Your task to perform on an android device: check out phone information Image 0: 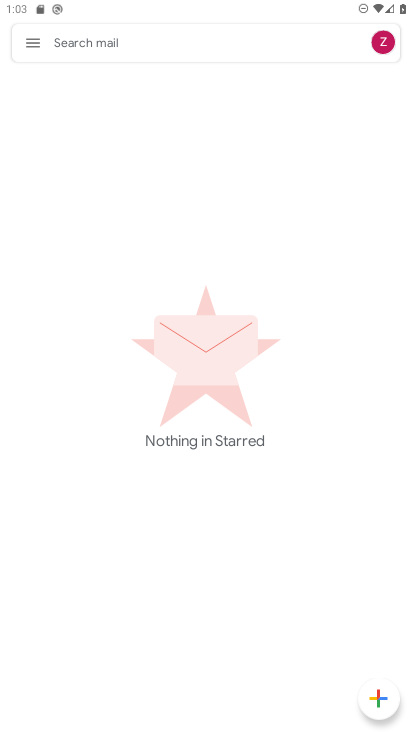
Step 0: press home button
Your task to perform on an android device: check out phone information Image 1: 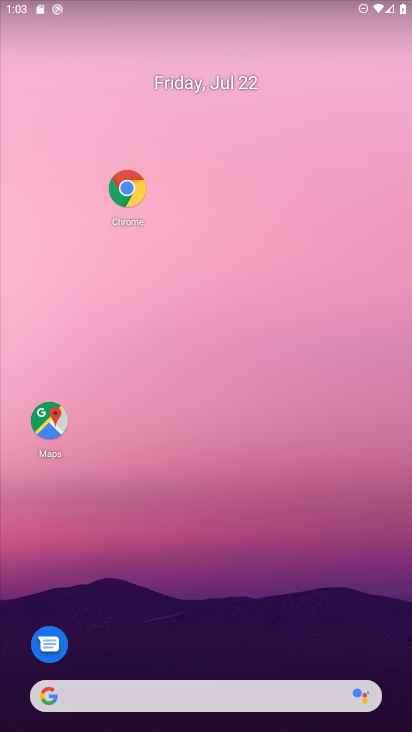
Step 1: drag from (154, 587) to (224, 35)
Your task to perform on an android device: check out phone information Image 2: 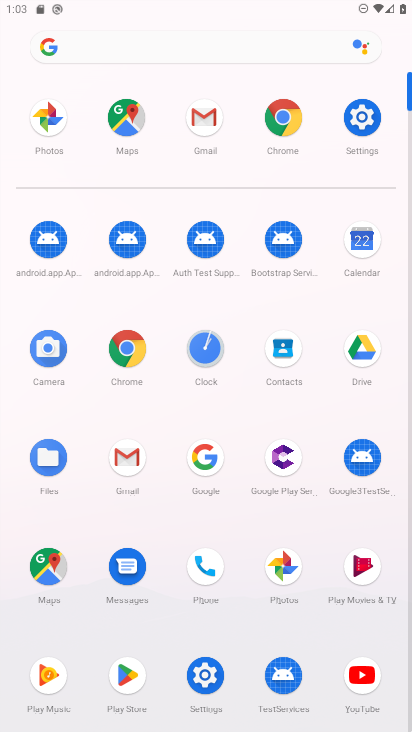
Step 2: click (348, 112)
Your task to perform on an android device: check out phone information Image 3: 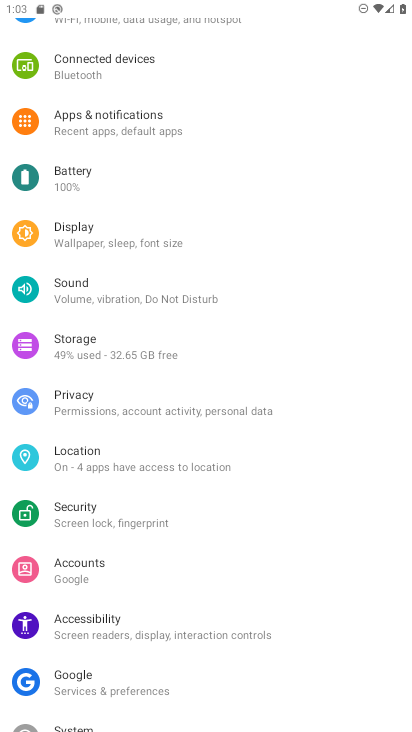
Step 3: drag from (193, 668) to (181, 219)
Your task to perform on an android device: check out phone information Image 4: 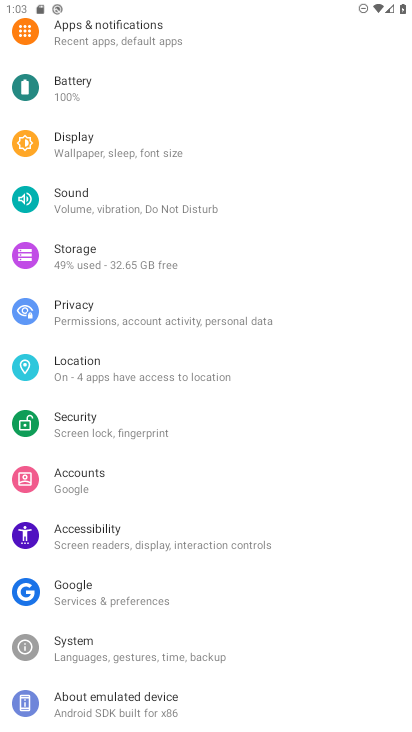
Step 4: click (191, 691)
Your task to perform on an android device: check out phone information Image 5: 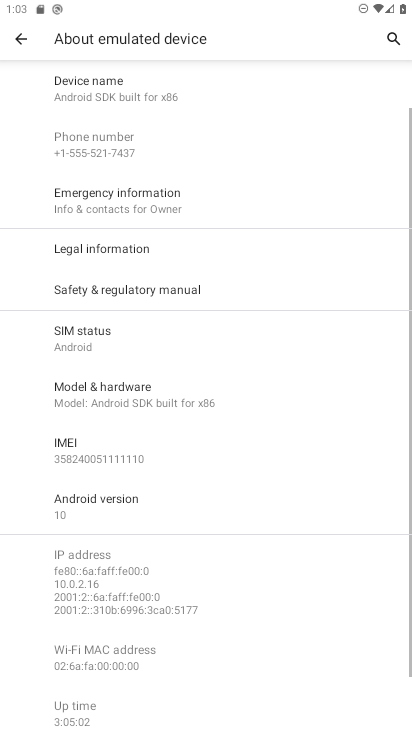
Step 5: task complete